Your task to perform on an android device: open sync settings in chrome Image 0: 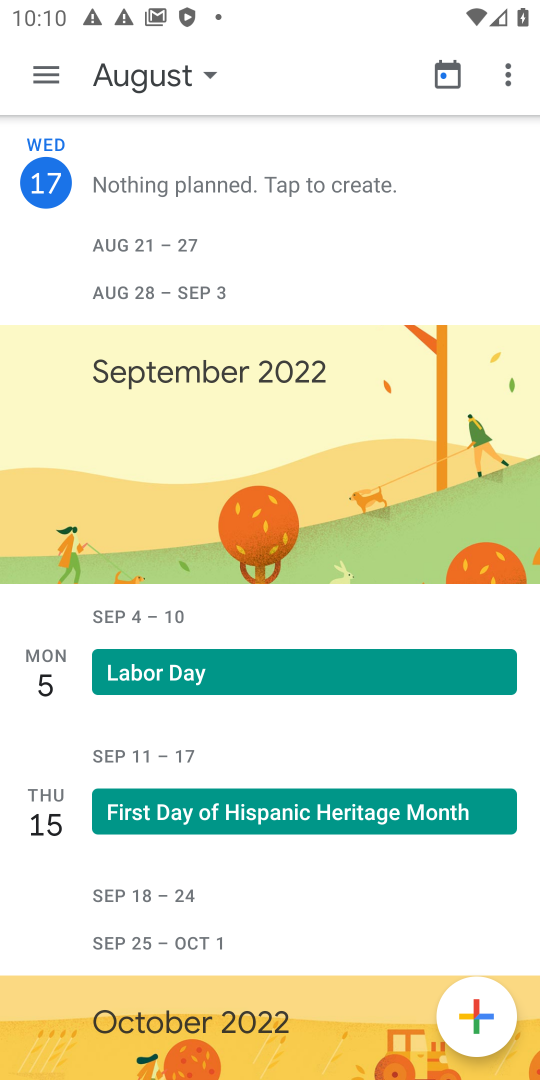
Step 0: press home button
Your task to perform on an android device: open sync settings in chrome Image 1: 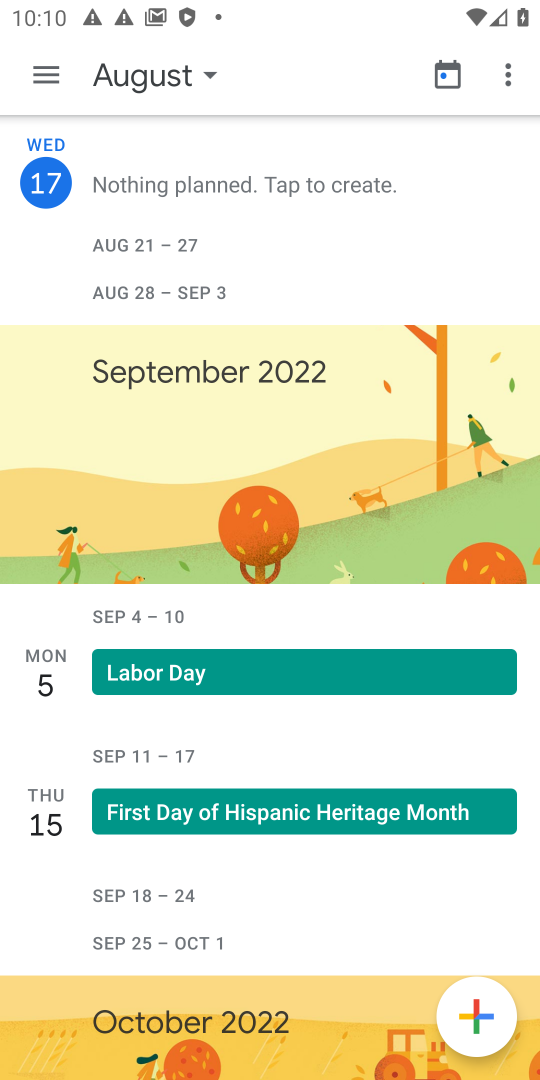
Step 1: press home button
Your task to perform on an android device: open sync settings in chrome Image 2: 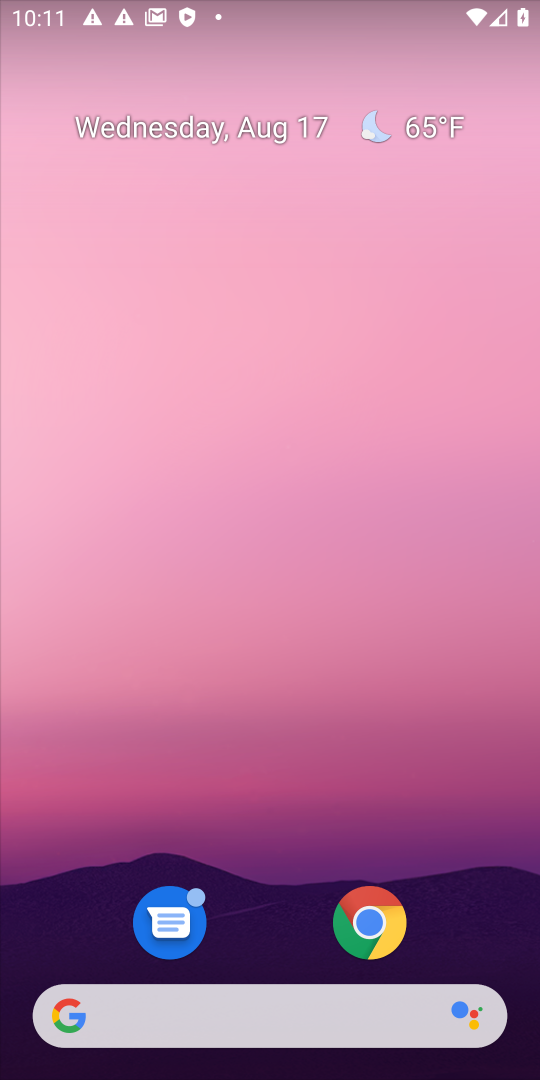
Step 2: drag from (230, 898) to (319, 9)
Your task to perform on an android device: open sync settings in chrome Image 3: 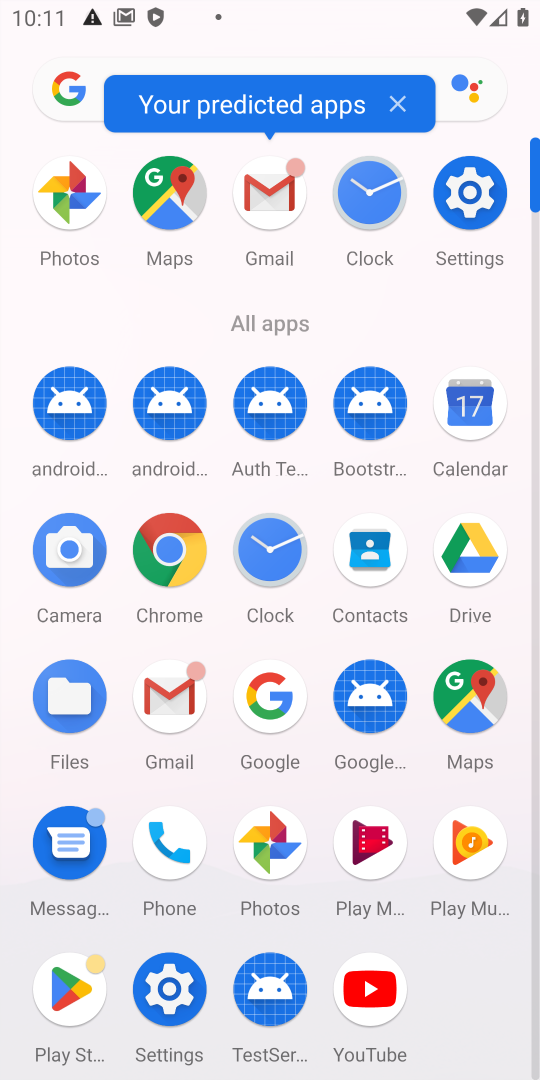
Step 3: click (160, 567)
Your task to perform on an android device: open sync settings in chrome Image 4: 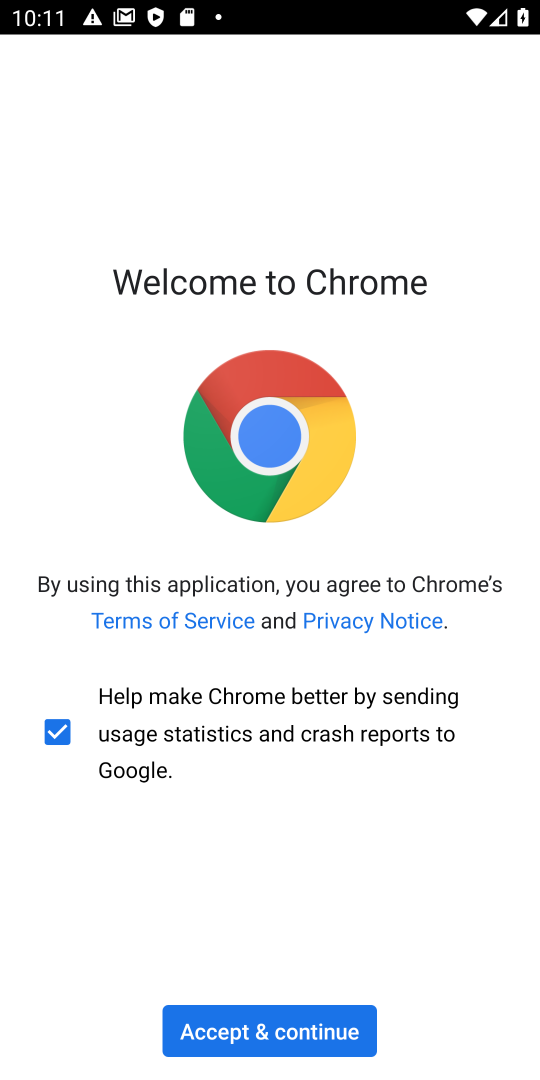
Step 4: click (269, 1013)
Your task to perform on an android device: open sync settings in chrome Image 5: 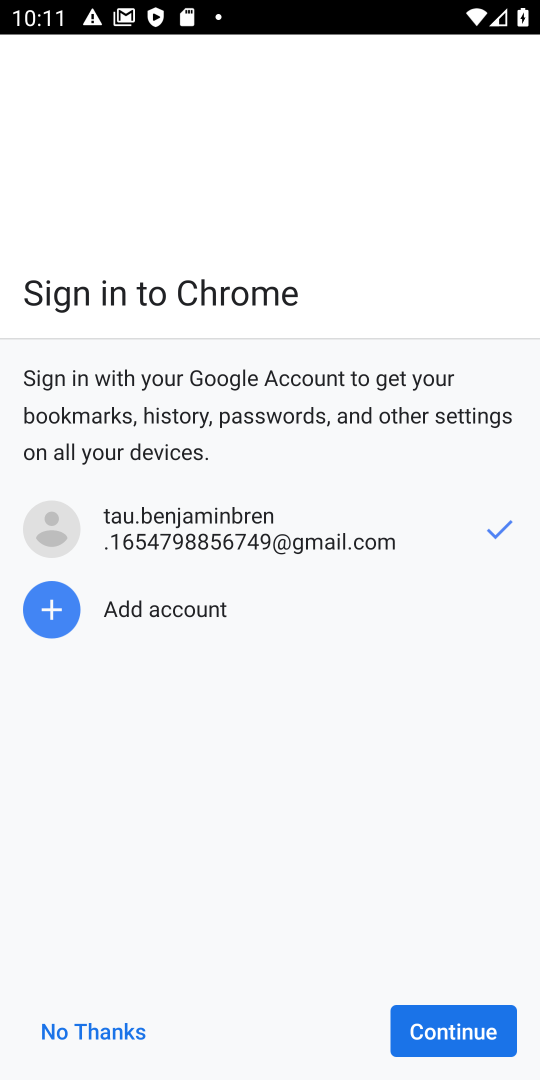
Step 5: click (462, 1063)
Your task to perform on an android device: open sync settings in chrome Image 6: 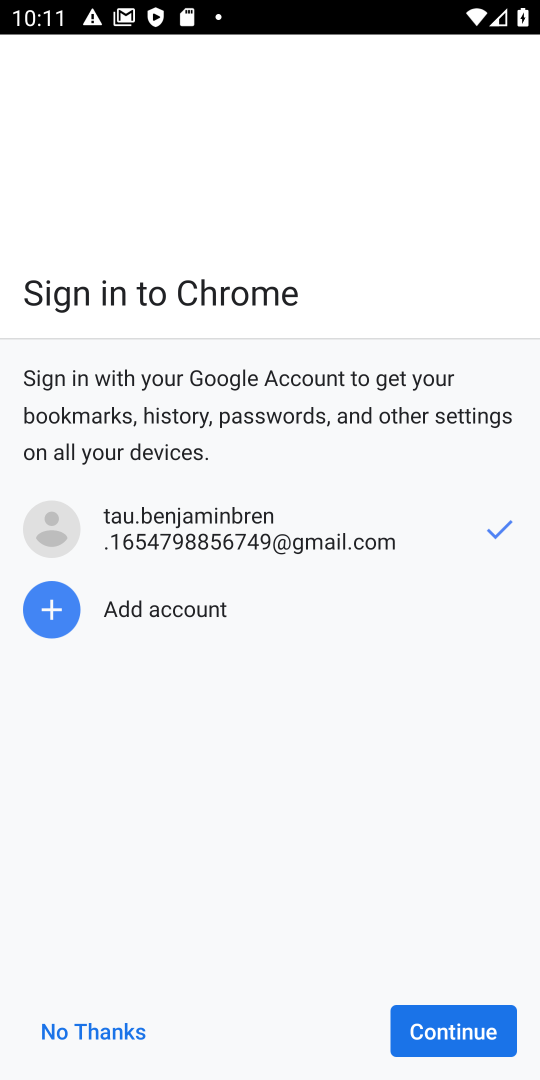
Step 6: click (463, 1037)
Your task to perform on an android device: open sync settings in chrome Image 7: 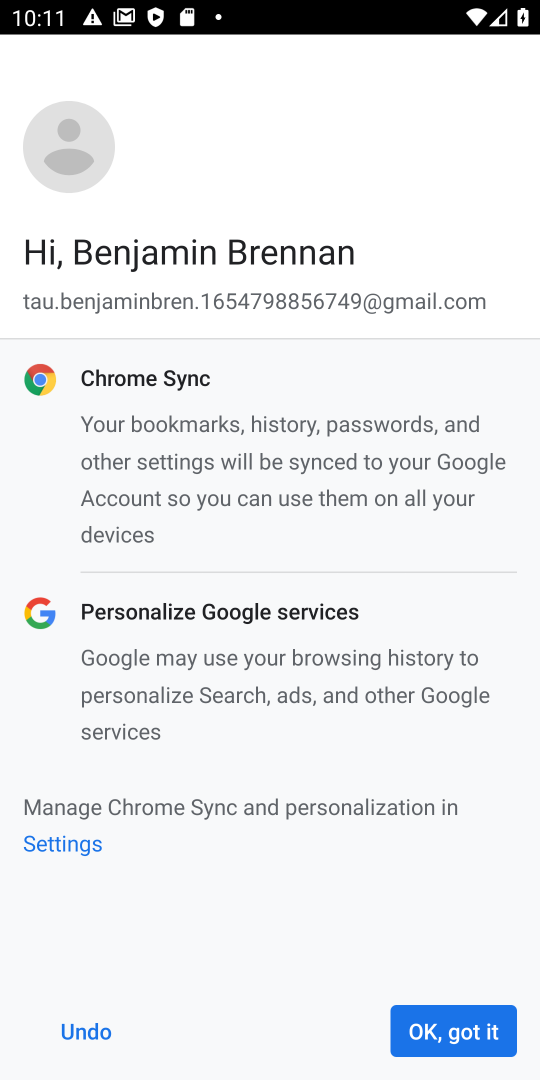
Step 7: click (448, 1014)
Your task to perform on an android device: open sync settings in chrome Image 8: 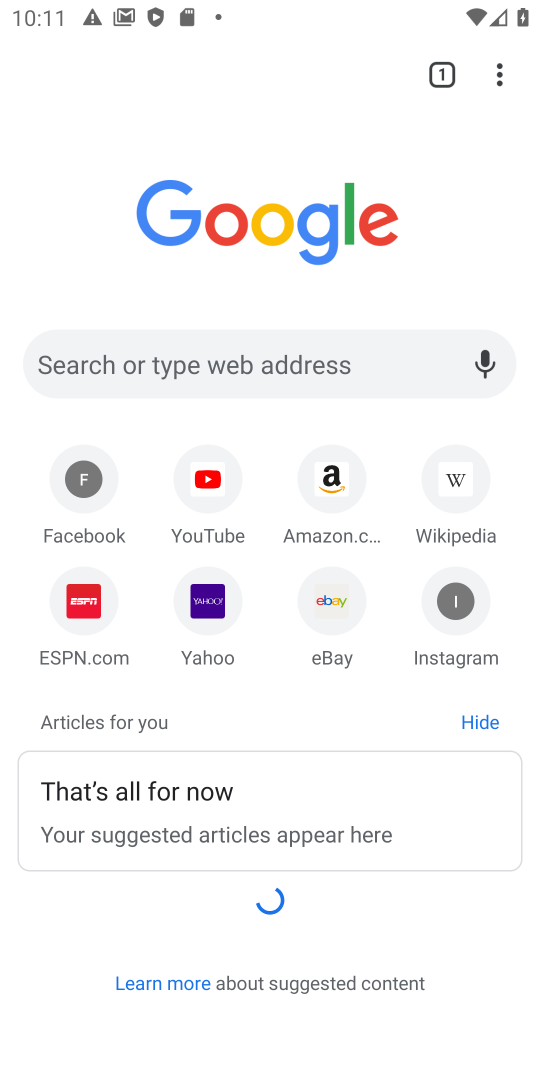
Step 8: drag from (508, 70) to (250, 640)
Your task to perform on an android device: open sync settings in chrome Image 9: 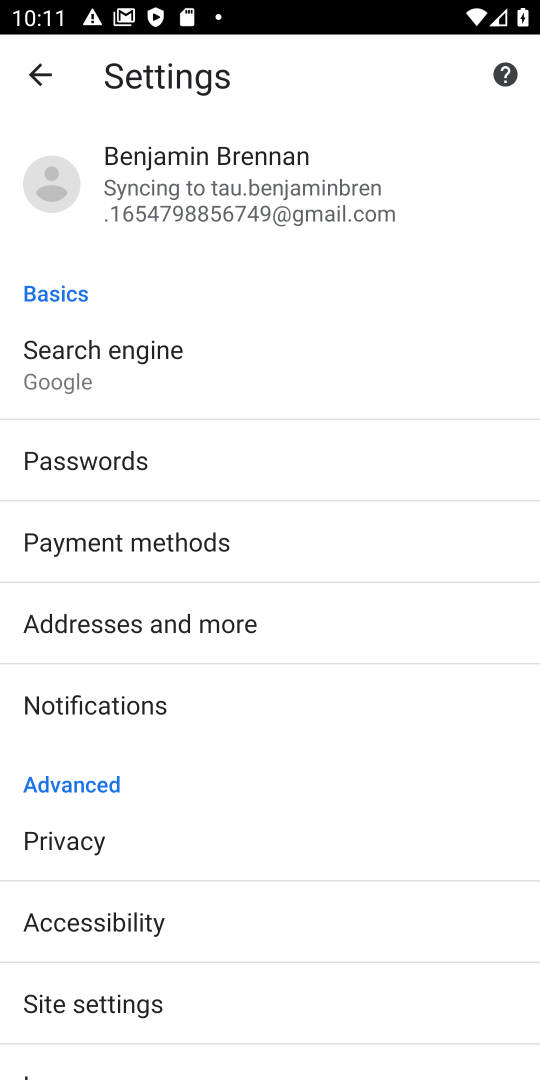
Step 9: click (170, 172)
Your task to perform on an android device: open sync settings in chrome Image 10: 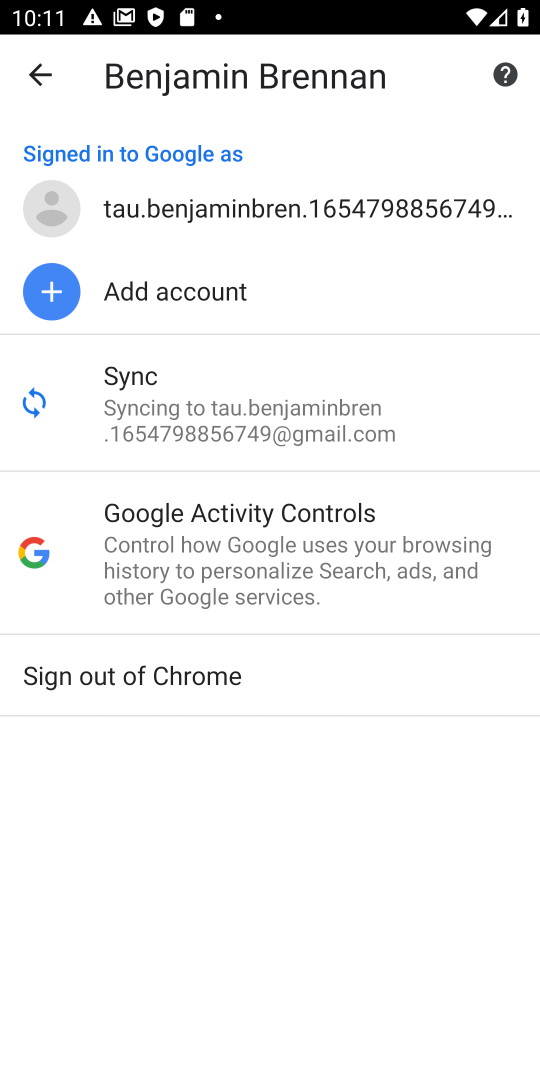
Step 10: click (213, 383)
Your task to perform on an android device: open sync settings in chrome Image 11: 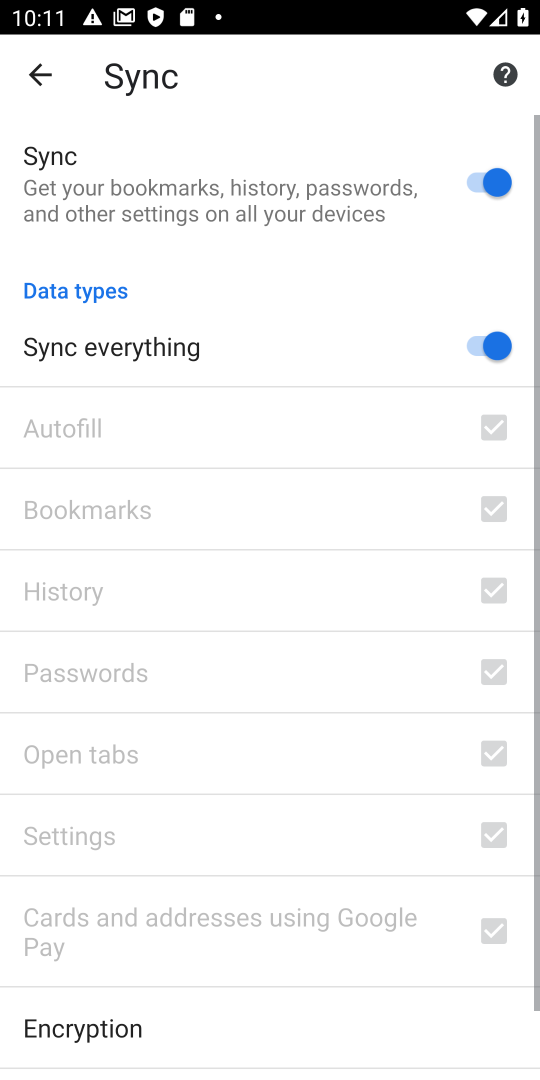
Step 11: task complete